Your task to perform on an android device: Open Google Chrome and click the shortcut for Amazon.com Image 0: 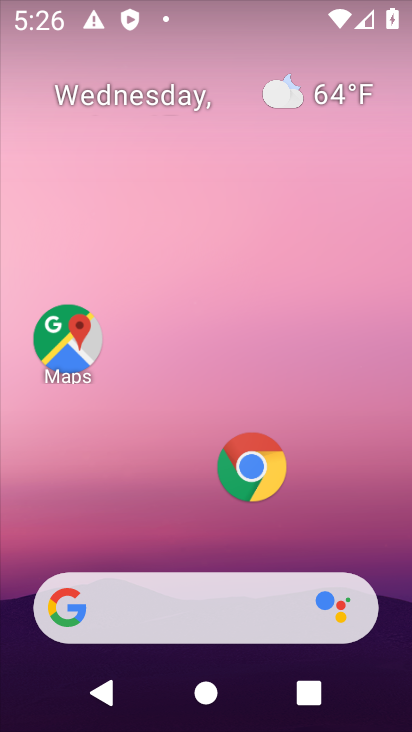
Step 0: drag from (179, 475) to (175, 96)
Your task to perform on an android device: Open Google Chrome and click the shortcut for Amazon.com Image 1: 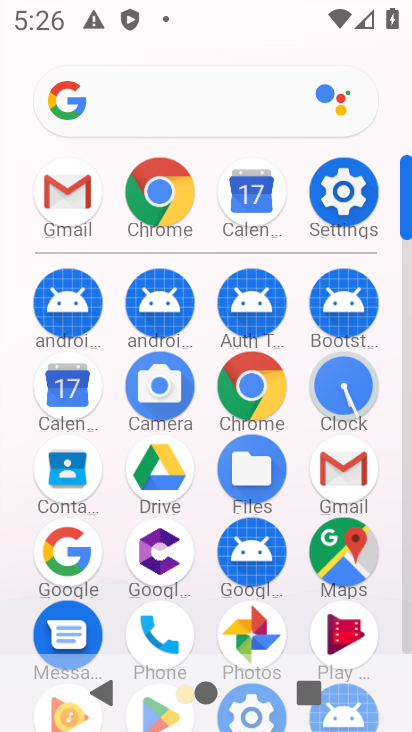
Step 1: click (163, 186)
Your task to perform on an android device: Open Google Chrome and click the shortcut for Amazon.com Image 2: 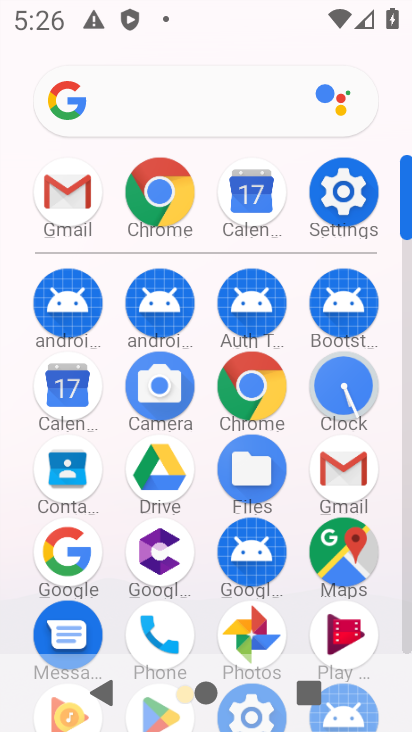
Step 2: click (163, 186)
Your task to perform on an android device: Open Google Chrome and click the shortcut for Amazon.com Image 3: 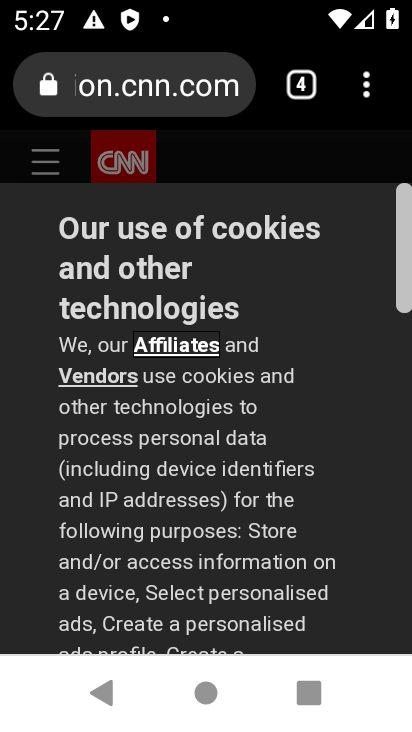
Step 3: press home button
Your task to perform on an android device: Open Google Chrome and click the shortcut for Amazon.com Image 4: 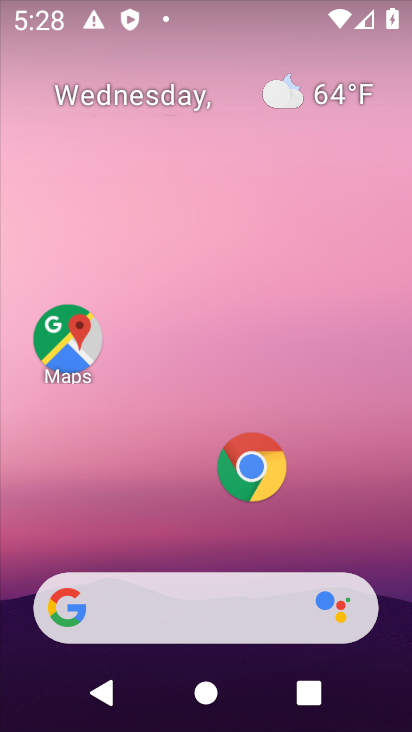
Step 4: click (259, 486)
Your task to perform on an android device: Open Google Chrome and click the shortcut for Amazon.com Image 5: 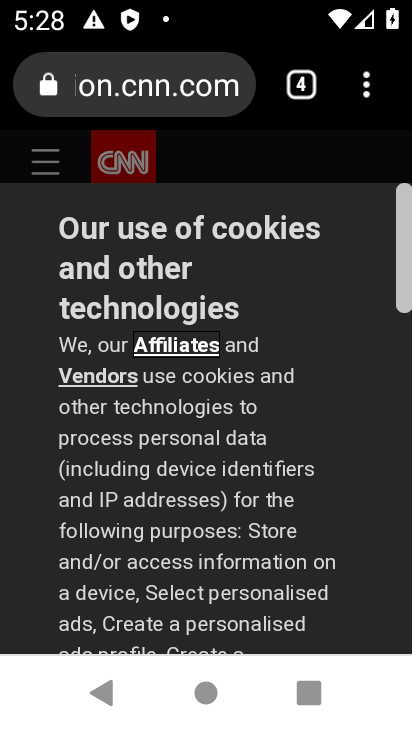
Step 5: click (311, 81)
Your task to perform on an android device: Open Google Chrome and click the shortcut for Amazon.com Image 6: 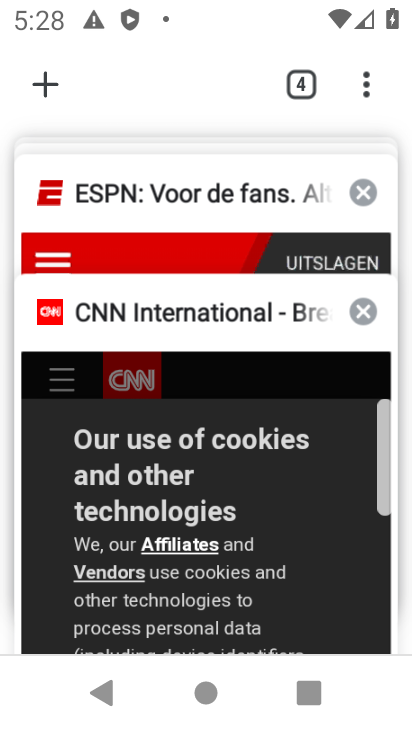
Step 6: click (42, 84)
Your task to perform on an android device: Open Google Chrome and click the shortcut for Amazon.com Image 7: 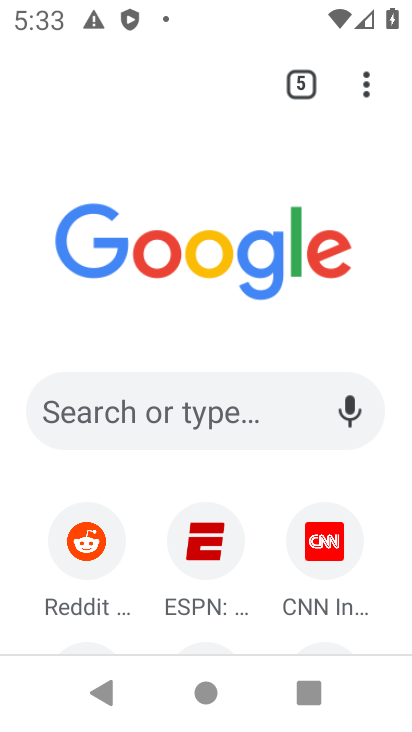
Step 7: task complete